Your task to perform on an android device: Open Google Chrome Image 0: 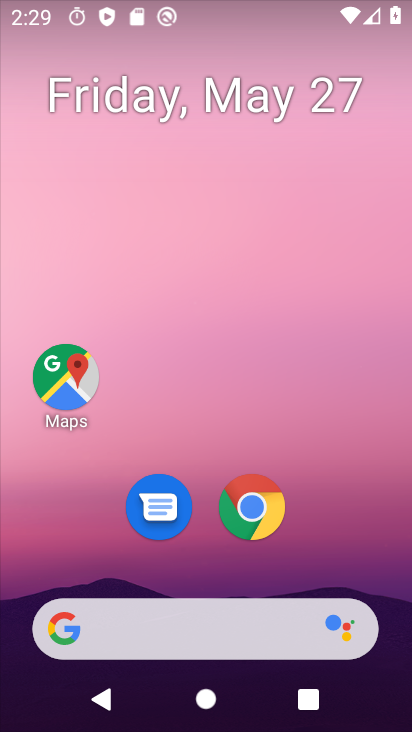
Step 0: click (255, 494)
Your task to perform on an android device: Open Google Chrome Image 1: 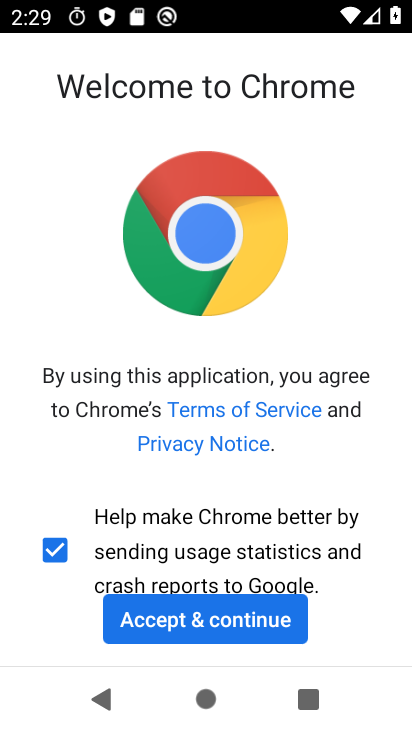
Step 1: click (249, 623)
Your task to perform on an android device: Open Google Chrome Image 2: 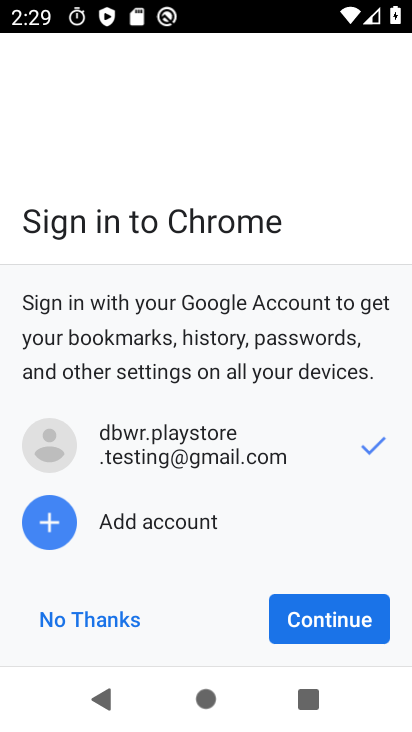
Step 2: click (301, 619)
Your task to perform on an android device: Open Google Chrome Image 3: 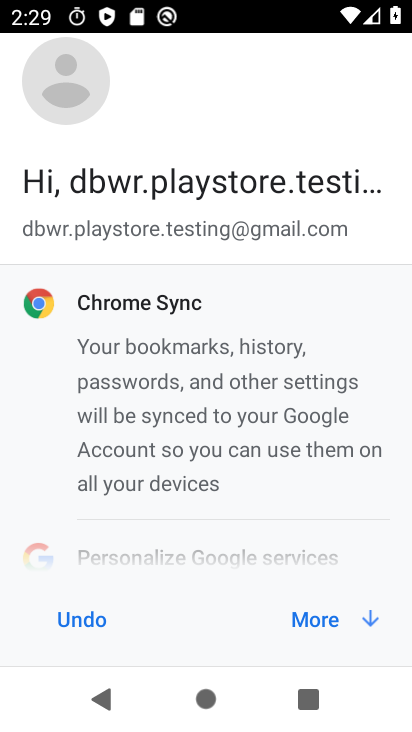
Step 3: click (301, 620)
Your task to perform on an android device: Open Google Chrome Image 4: 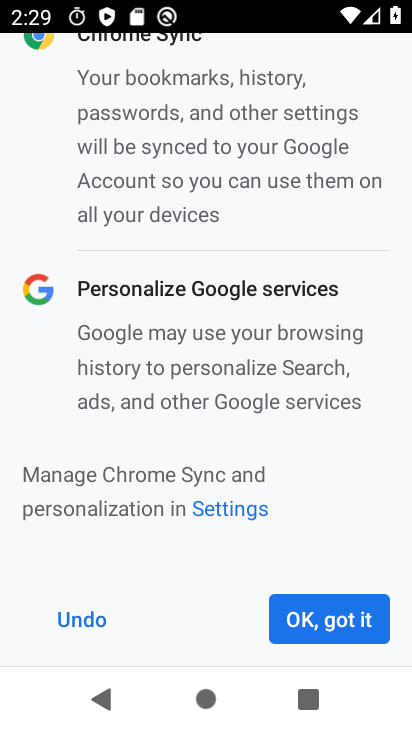
Step 4: click (300, 620)
Your task to perform on an android device: Open Google Chrome Image 5: 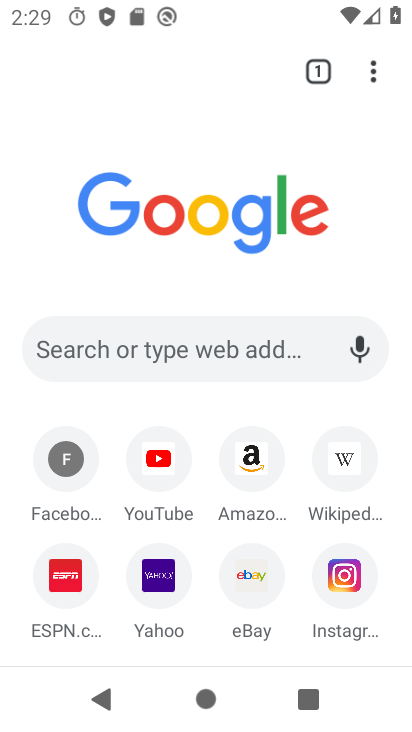
Step 5: task complete